Your task to perform on an android device: Search for bose soundsport free on costco, select the first entry, and add it to the cart. Image 0: 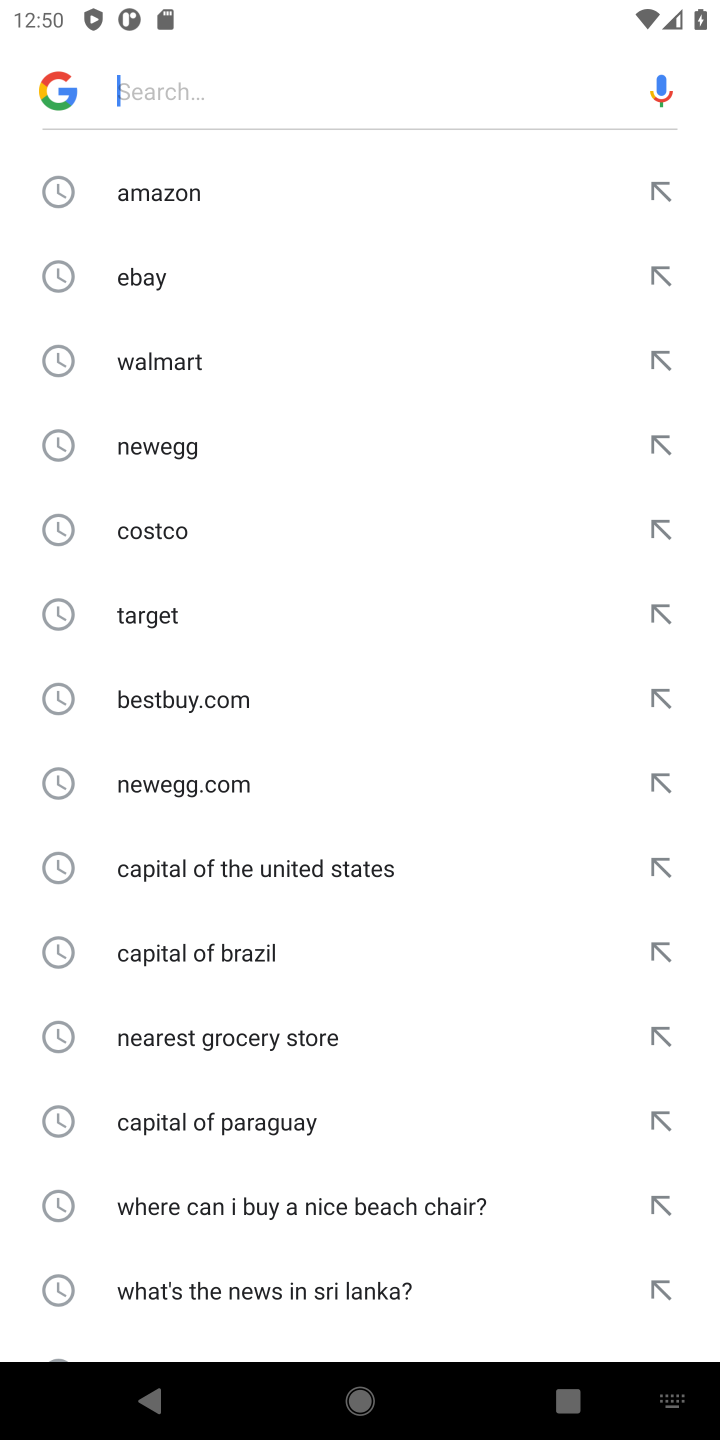
Step 0: click (157, 548)
Your task to perform on an android device: Search for bose soundsport free on costco, select the first entry, and add it to the cart. Image 1: 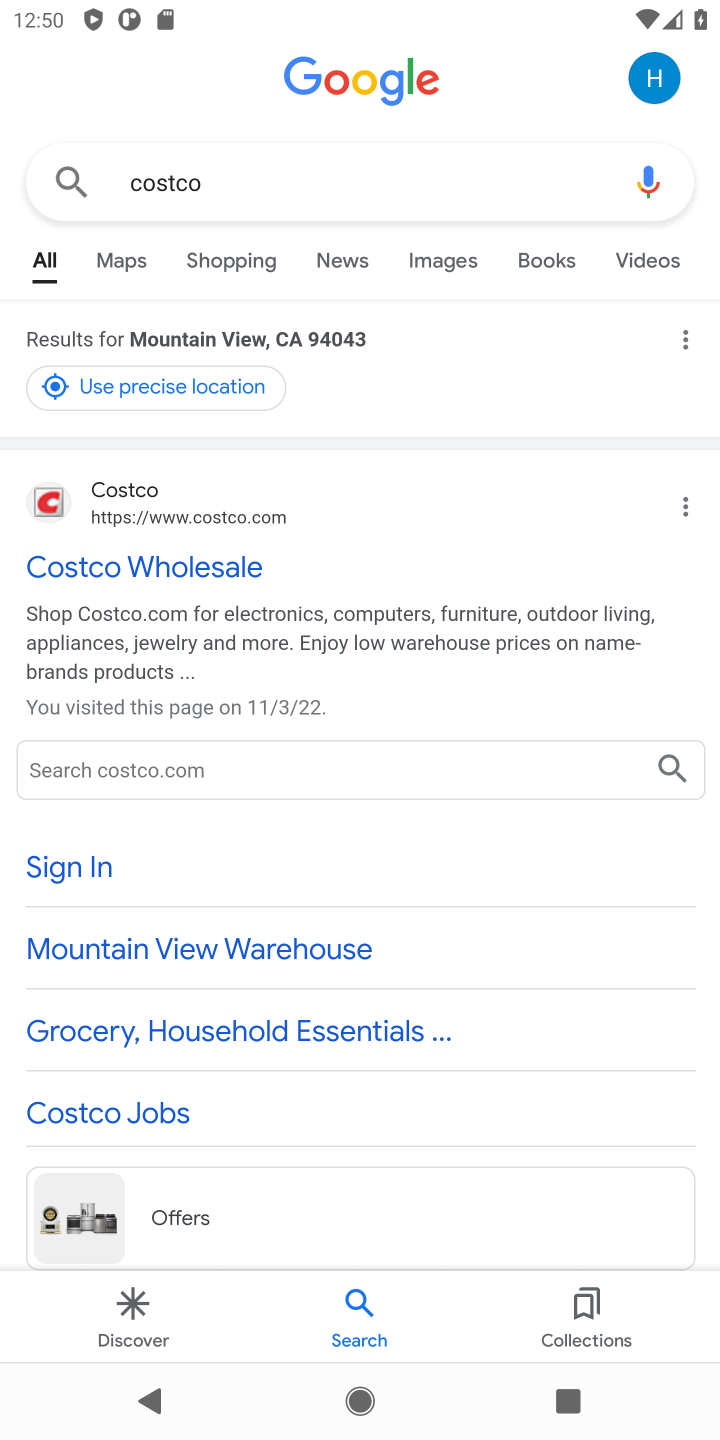
Step 1: click (141, 583)
Your task to perform on an android device: Search for bose soundsport free on costco, select the first entry, and add it to the cart. Image 2: 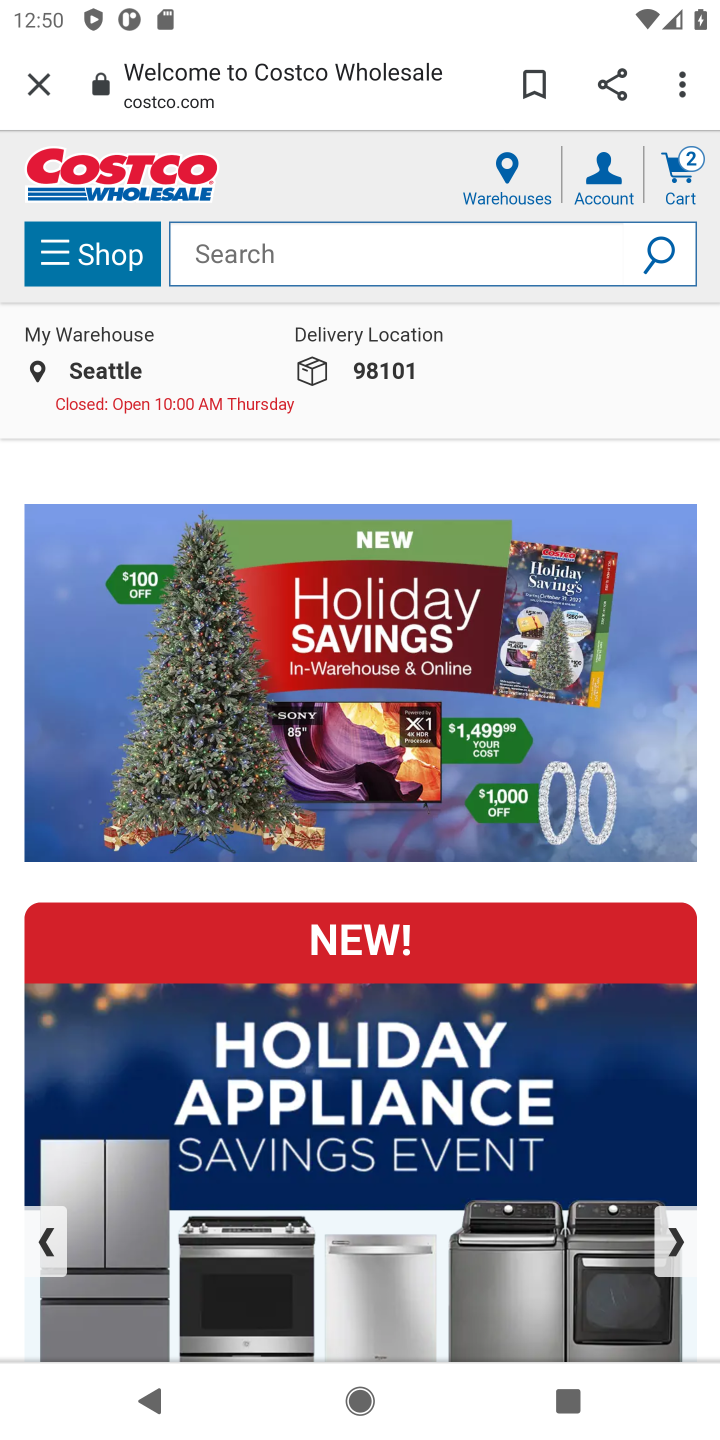
Step 2: click (345, 260)
Your task to perform on an android device: Search for bose soundsport free on costco, select the first entry, and add it to the cart. Image 3: 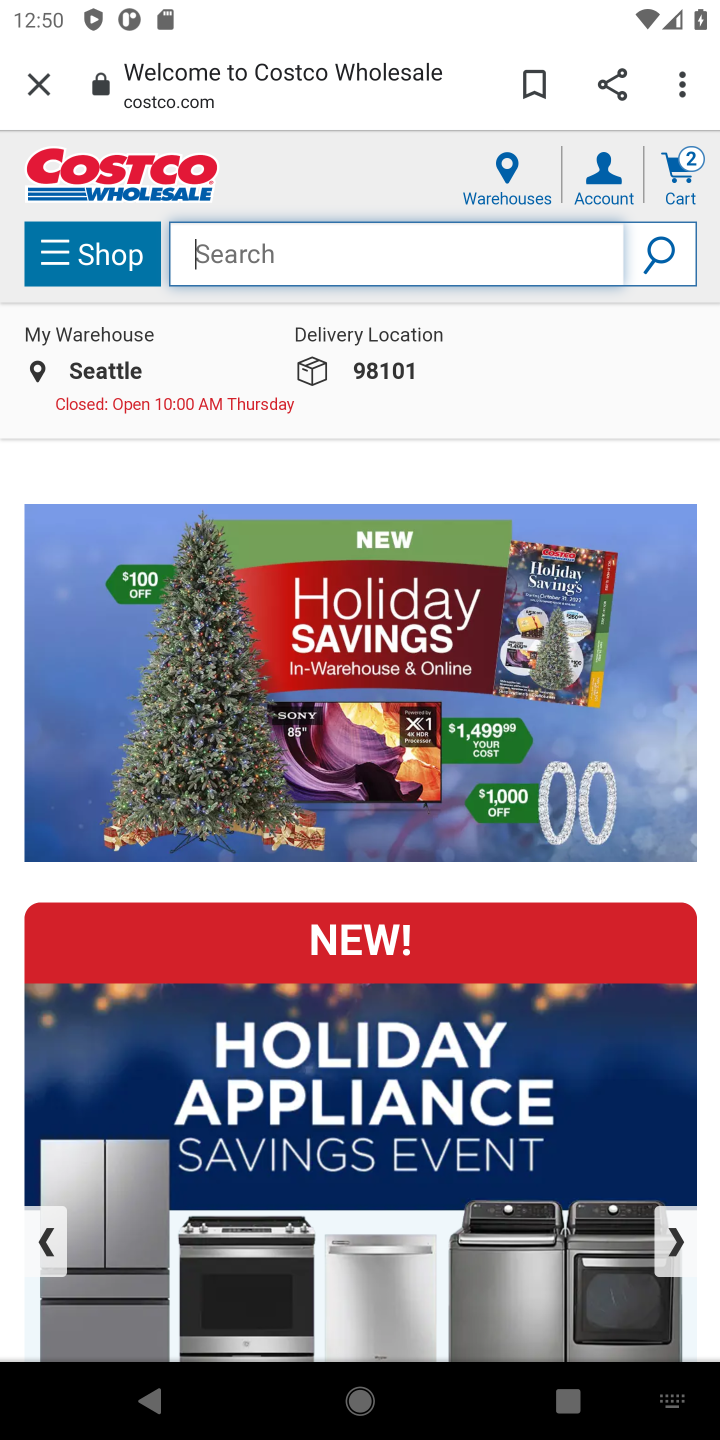
Step 3: type "bose soundsport free"
Your task to perform on an android device: Search for bose soundsport free on costco, select the first entry, and add it to the cart. Image 4: 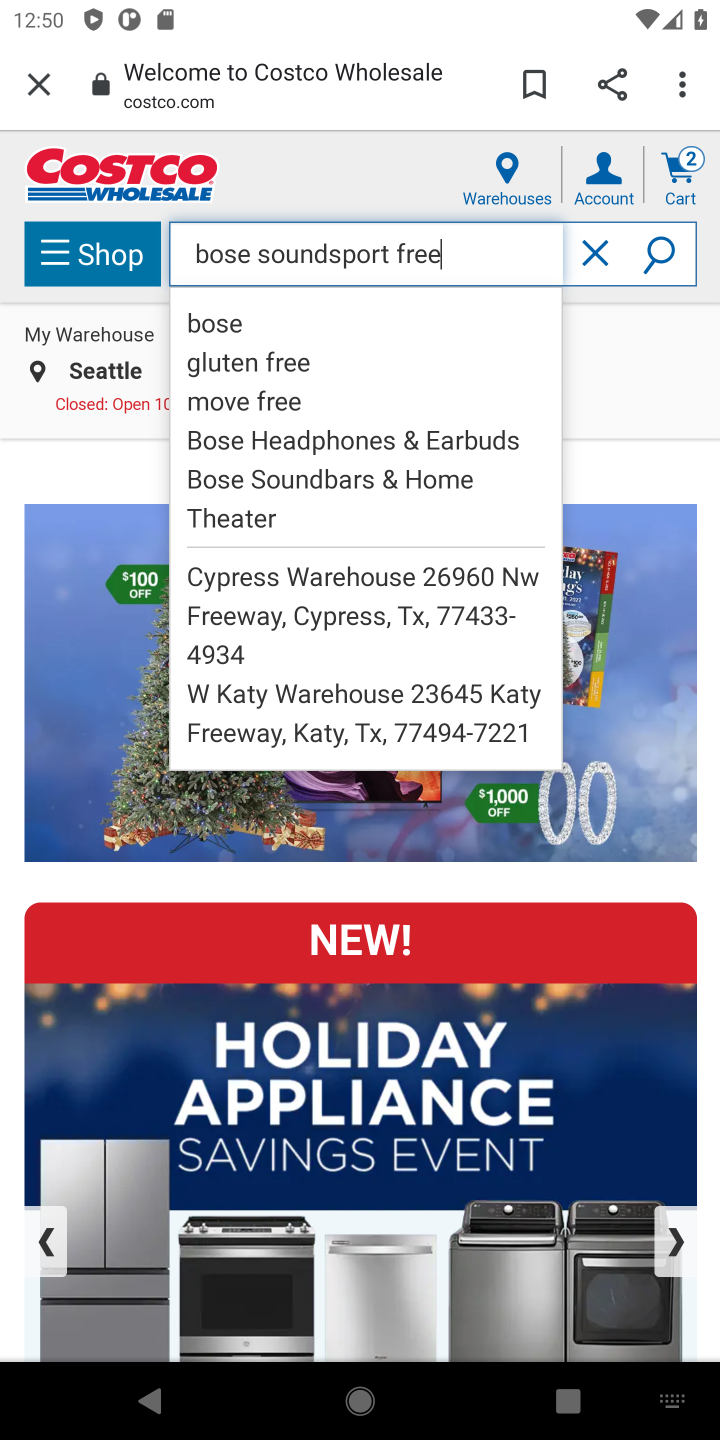
Step 4: click (644, 242)
Your task to perform on an android device: Search for bose soundsport free on costco, select the first entry, and add it to the cart. Image 5: 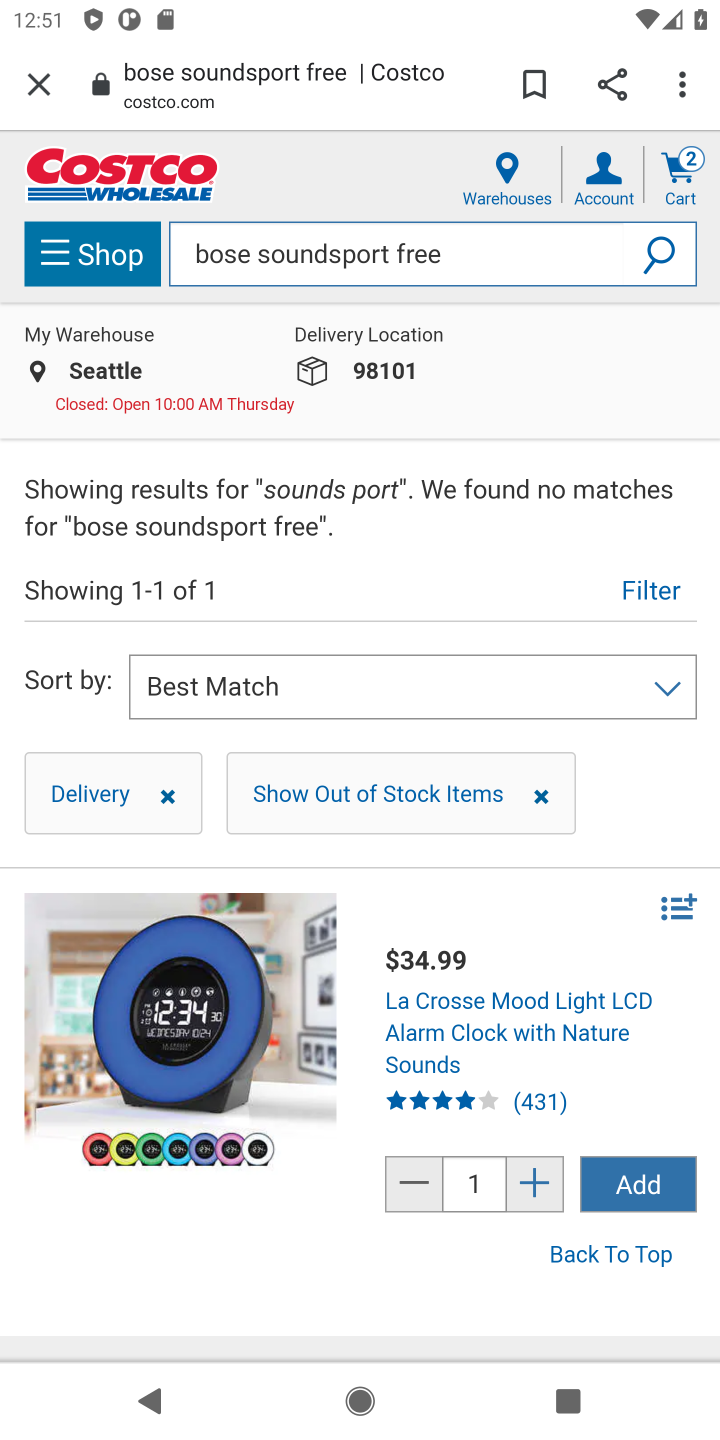
Step 5: task complete